Your task to perform on an android device: Show me productivity apps on the Play Store Image 0: 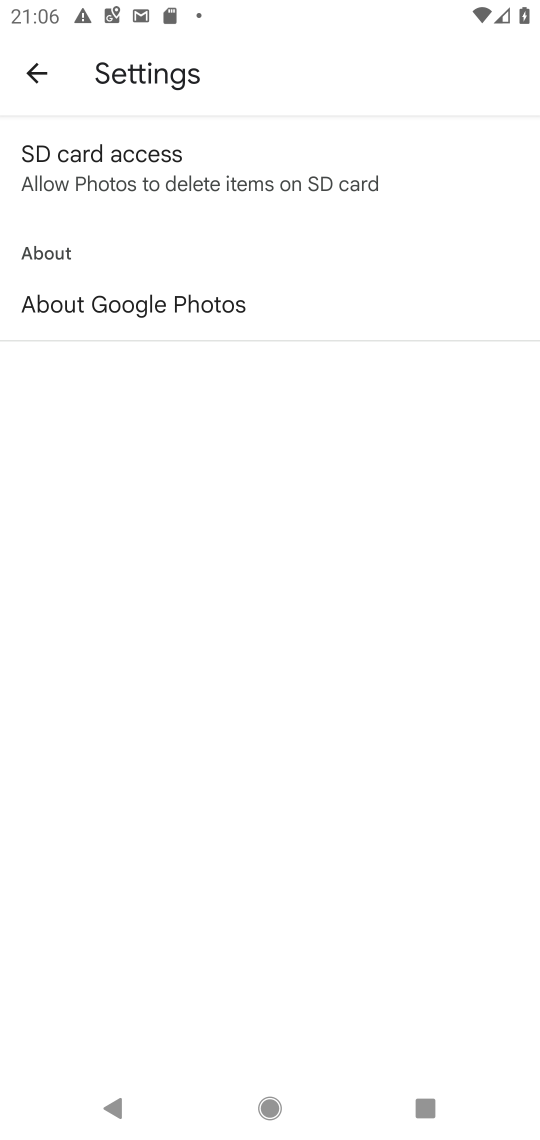
Step 0: press home button
Your task to perform on an android device: Show me productivity apps on the Play Store Image 1: 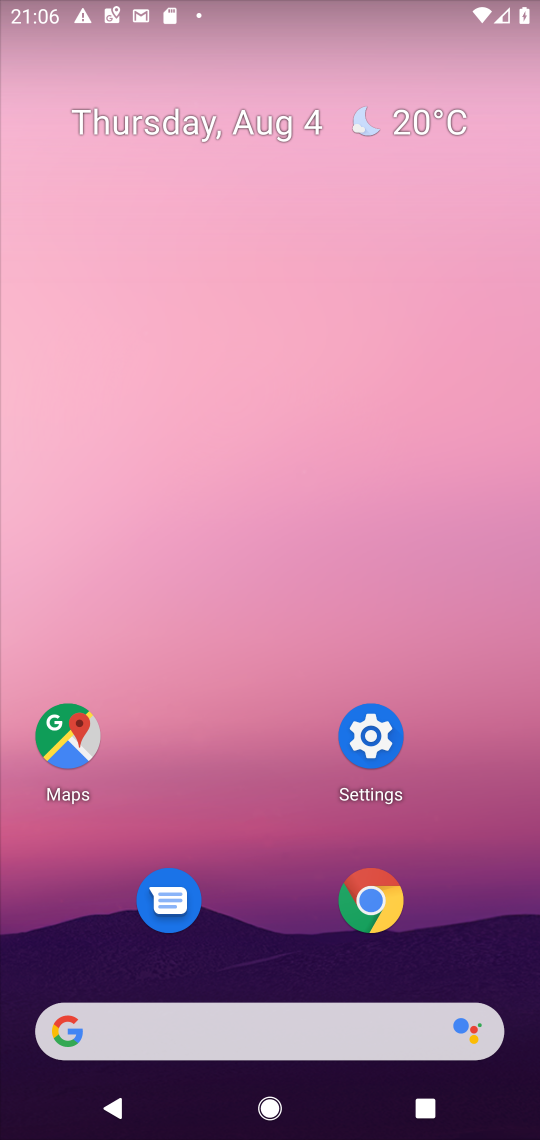
Step 1: drag from (218, 1029) to (444, 130)
Your task to perform on an android device: Show me productivity apps on the Play Store Image 2: 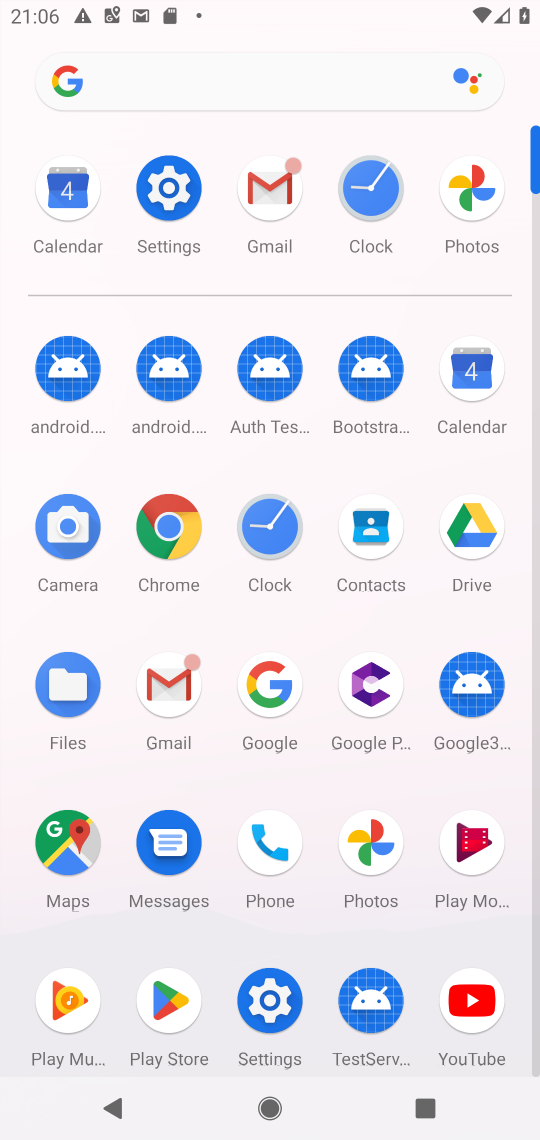
Step 2: click (172, 999)
Your task to perform on an android device: Show me productivity apps on the Play Store Image 3: 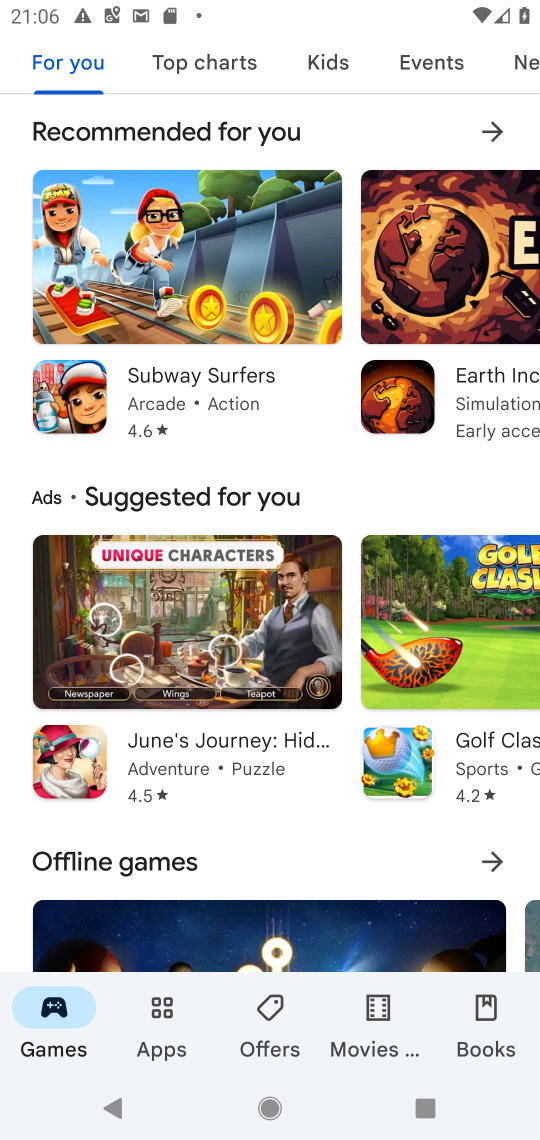
Step 3: click (167, 1030)
Your task to perform on an android device: Show me productivity apps on the Play Store Image 4: 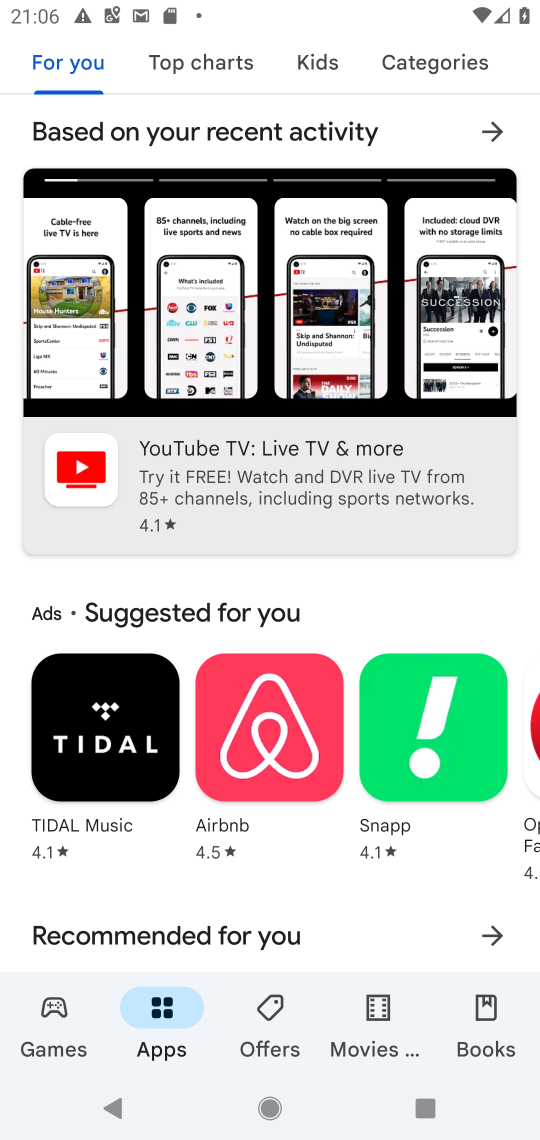
Step 4: click (448, 58)
Your task to perform on an android device: Show me productivity apps on the Play Store Image 5: 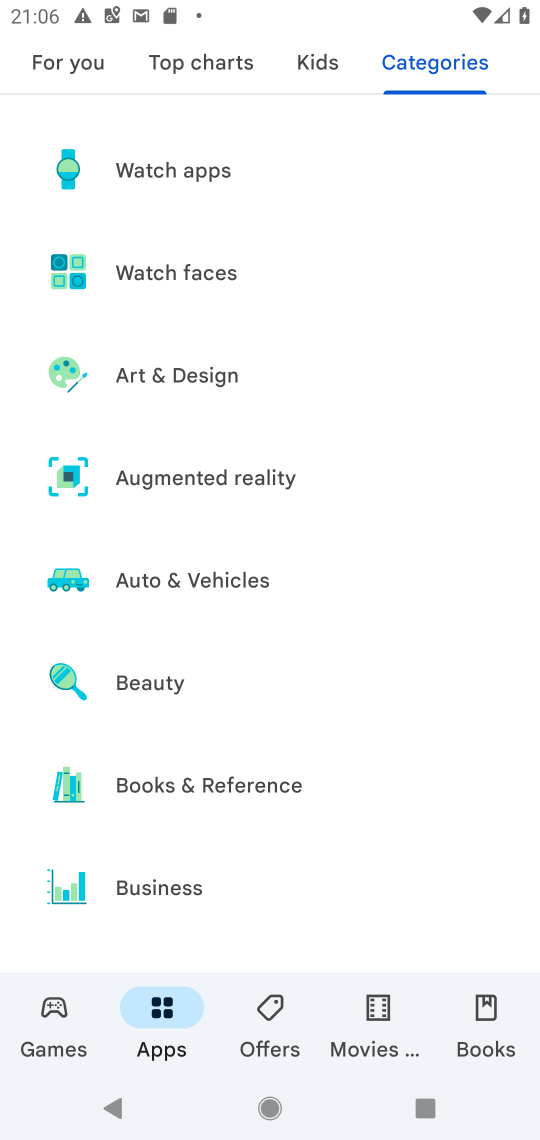
Step 5: drag from (290, 889) to (418, 268)
Your task to perform on an android device: Show me productivity apps on the Play Store Image 6: 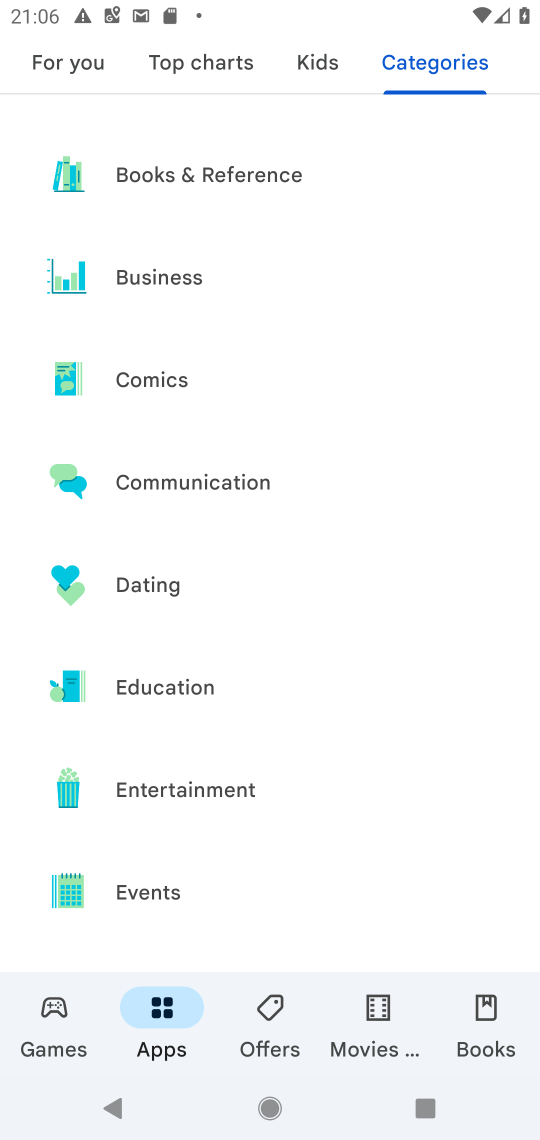
Step 6: drag from (258, 909) to (399, 208)
Your task to perform on an android device: Show me productivity apps on the Play Store Image 7: 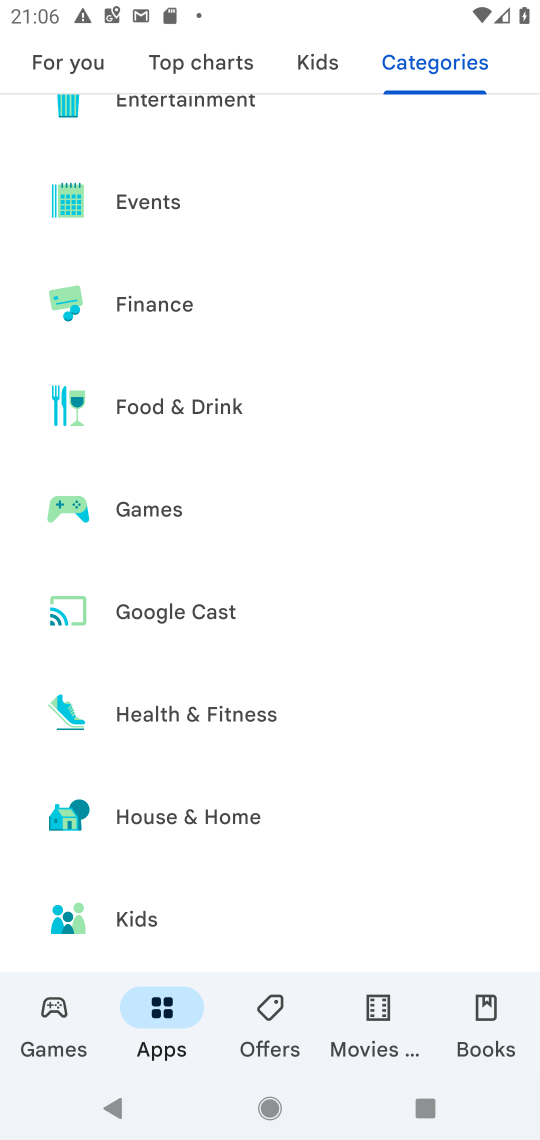
Step 7: drag from (298, 881) to (418, 135)
Your task to perform on an android device: Show me productivity apps on the Play Store Image 8: 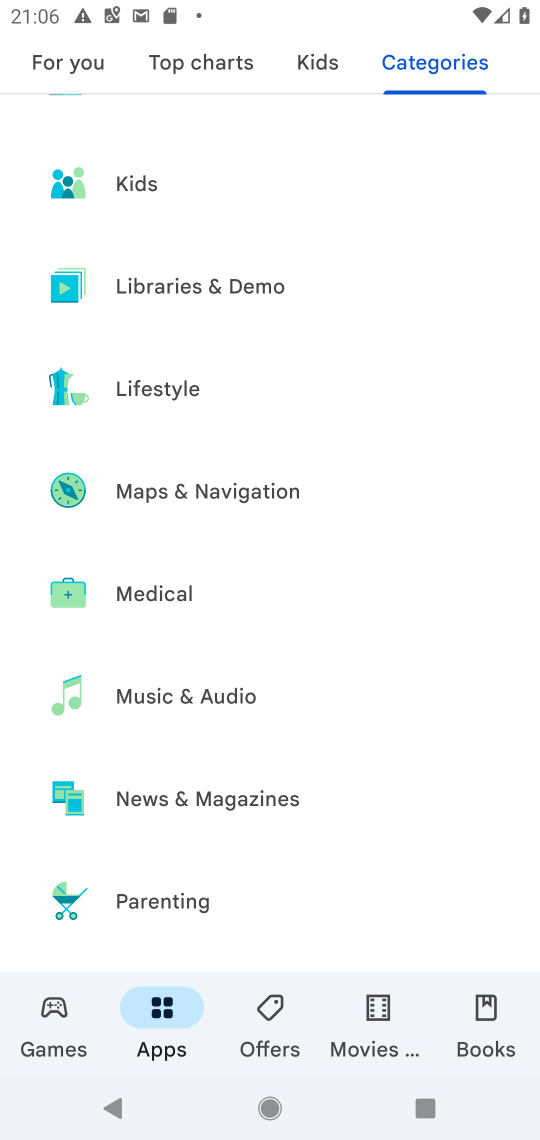
Step 8: drag from (325, 918) to (389, 317)
Your task to perform on an android device: Show me productivity apps on the Play Store Image 9: 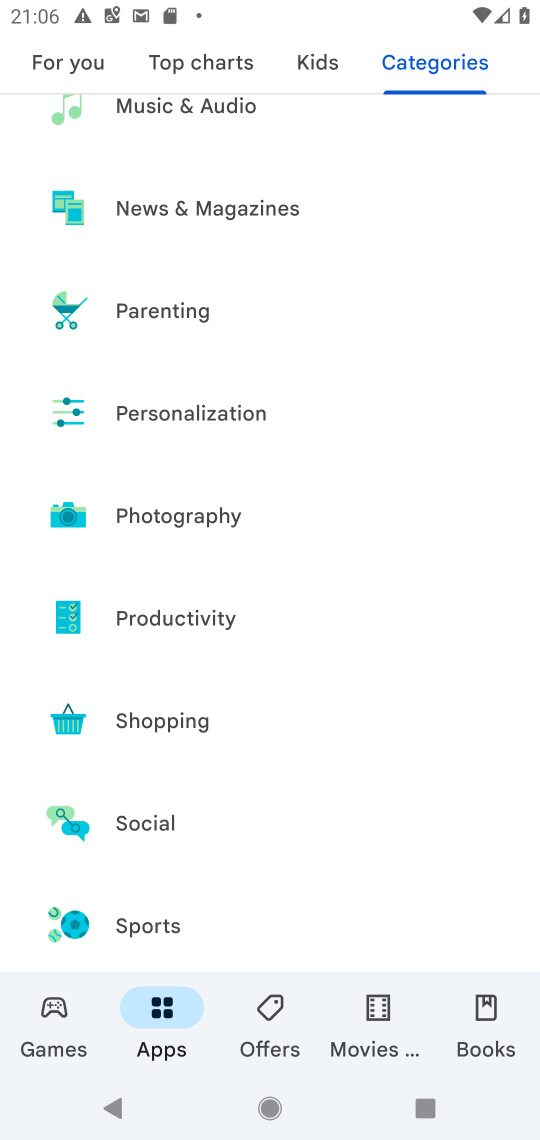
Step 9: click (163, 617)
Your task to perform on an android device: Show me productivity apps on the Play Store Image 10: 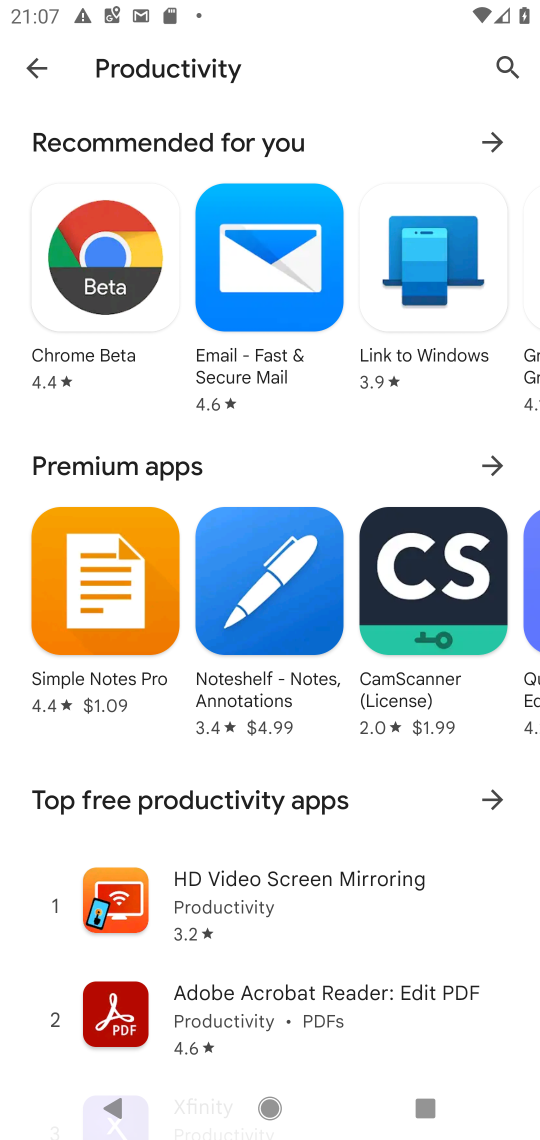
Step 10: task complete